Your task to perform on an android device: delete the emails in spam in the gmail app Image 0: 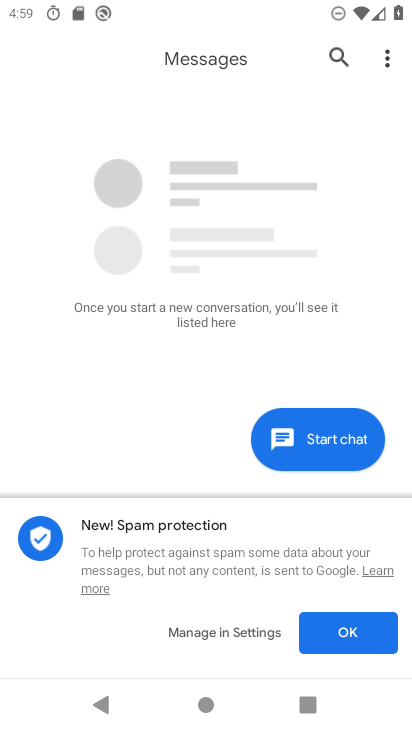
Step 0: press home button
Your task to perform on an android device: delete the emails in spam in the gmail app Image 1: 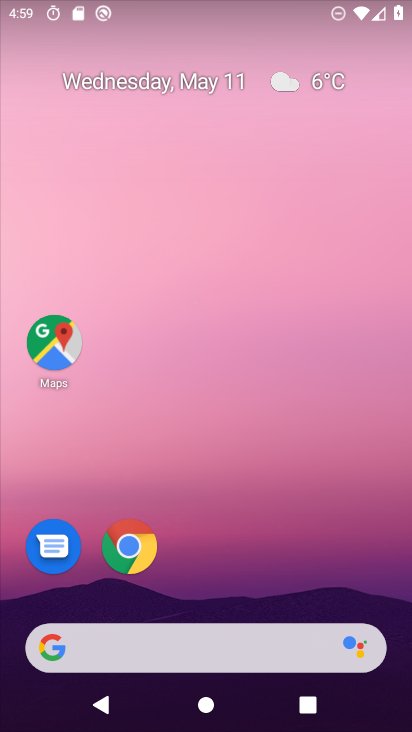
Step 1: drag from (184, 628) to (201, 222)
Your task to perform on an android device: delete the emails in spam in the gmail app Image 2: 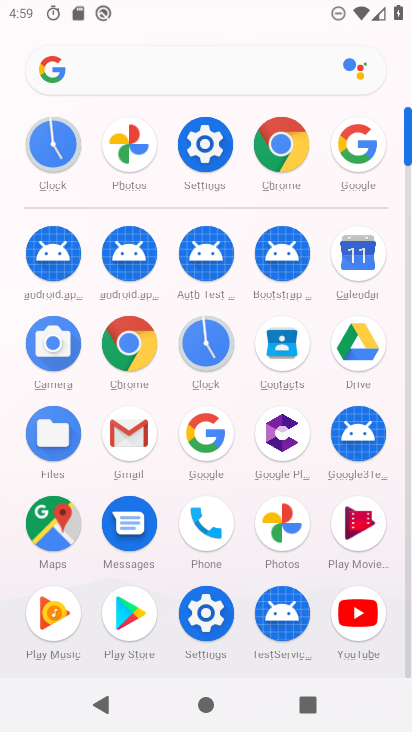
Step 2: click (129, 434)
Your task to perform on an android device: delete the emails in spam in the gmail app Image 3: 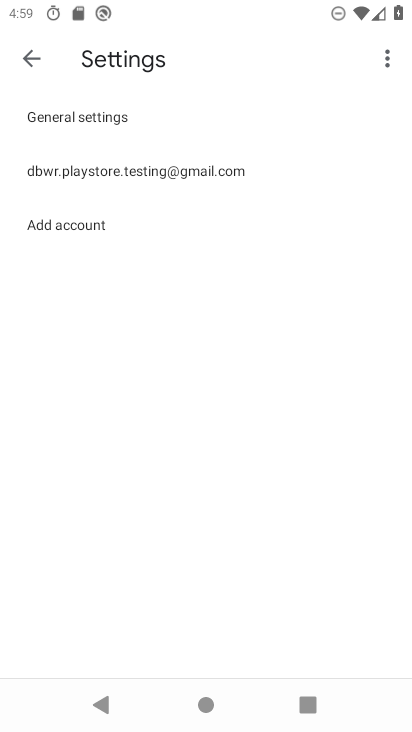
Step 3: click (30, 46)
Your task to perform on an android device: delete the emails in spam in the gmail app Image 4: 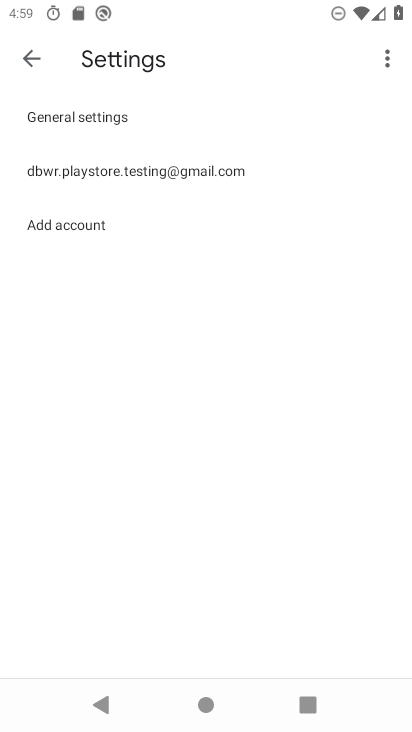
Step 4: click (30, 62)
Your task to perform on an android device: delete the emails in spam in the gmail app Image 5: 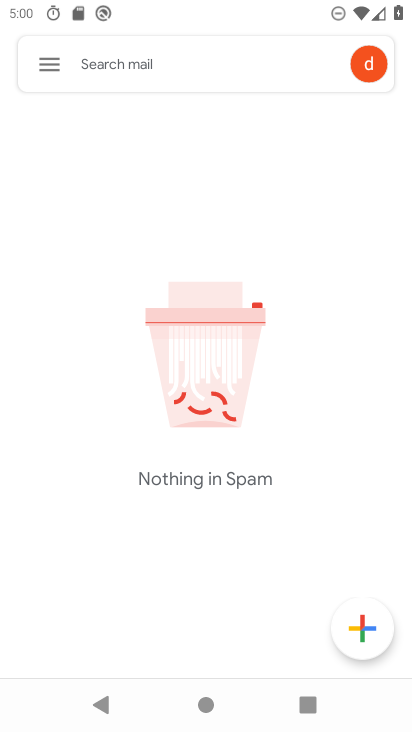
Step 5: task complete